Your task to perform on an android device: turn off data saver in the chrome app Image 0: 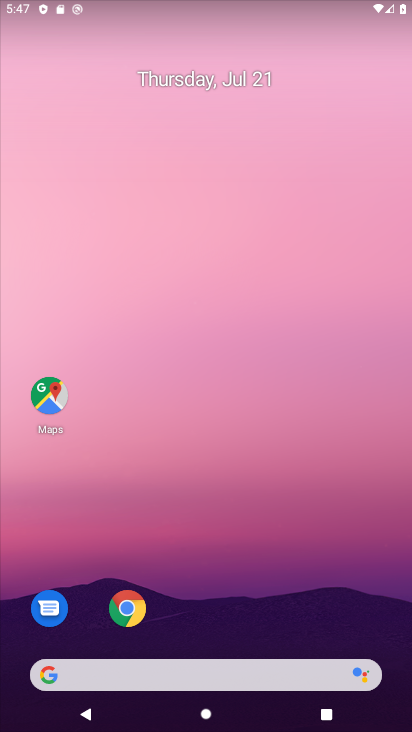
Step 0: click (128, 606)
Your task to perform on an android device: turn off data saver in the chrome app Image 1: 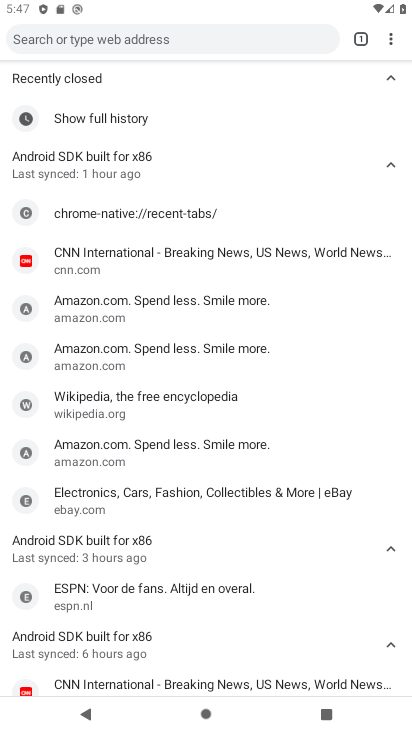
Step 1: click (392, 38)
Your task to perform on an android device: turn off data saver in the chrome app Image 2: 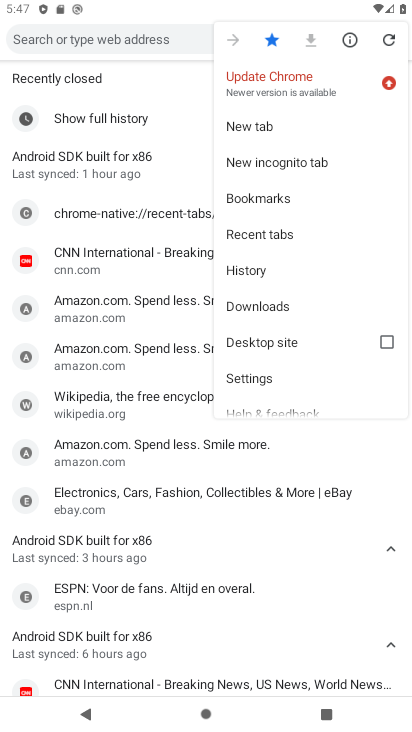
Step 2: click (249, 376)
Your task to perform on an android device: turn off data saver in the chrome app Image 3: 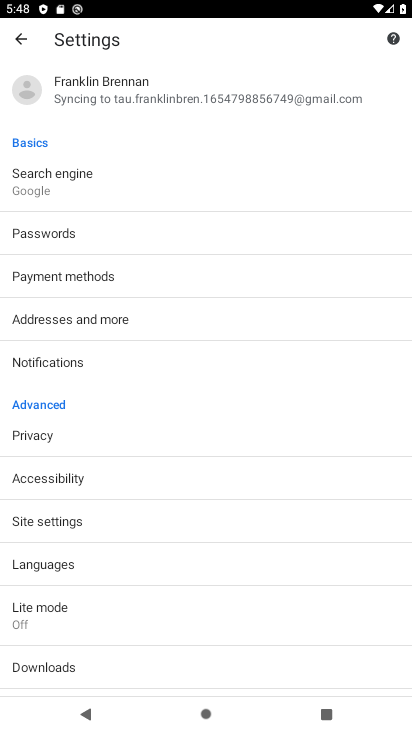
Step 3: click (54, 608)
Your task to perform on an android device: turn off data saver in the chrome app Image 4: 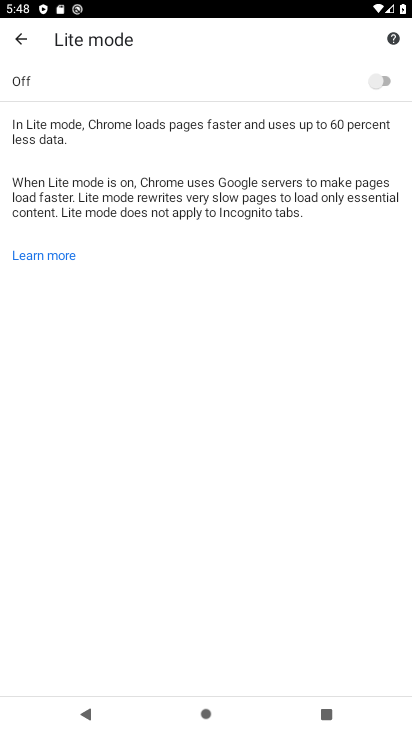
Step 4: task complete